Your task to perform on an android device: check google app version Image 0: 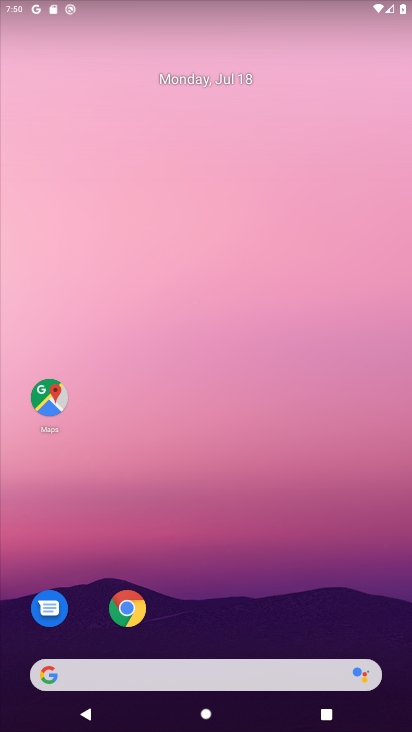
Step 0: drag from (227, 642) to (172, 61)
Your task to perform on an android device: check google app version Image 1: 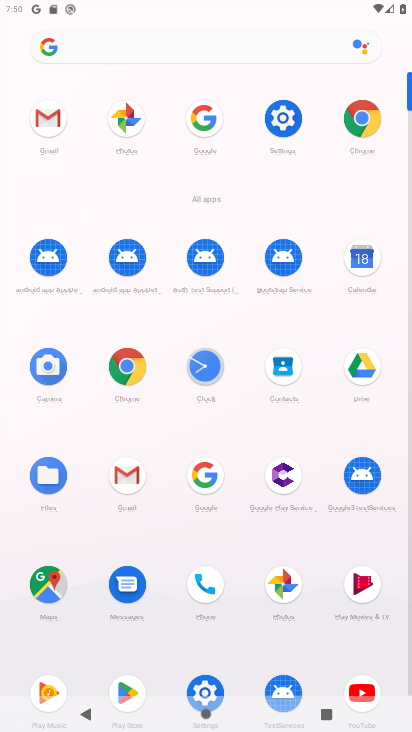
Step 1: click (215, 478)
Your task to perform on an android device: check google app version Image 2: 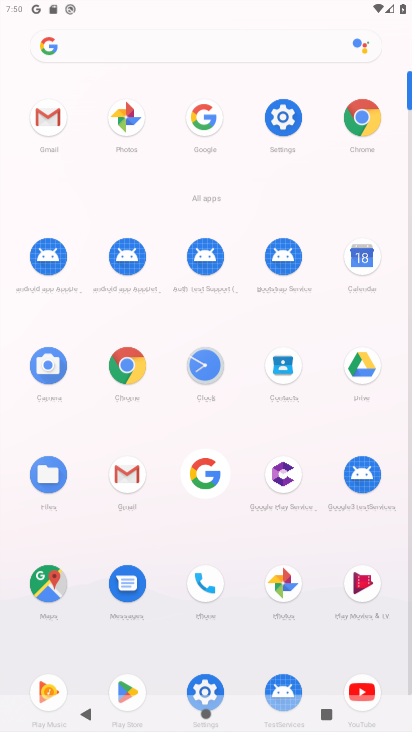
Step 2: click (215, 477)
Your task to perform on an android device: check google app version Image 3: 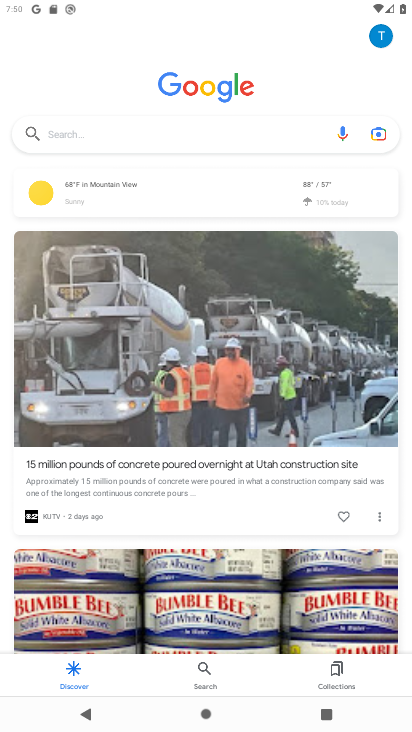
Step 3: click (372, 33)
Your task to perform on an android device: check google app version Image 4: 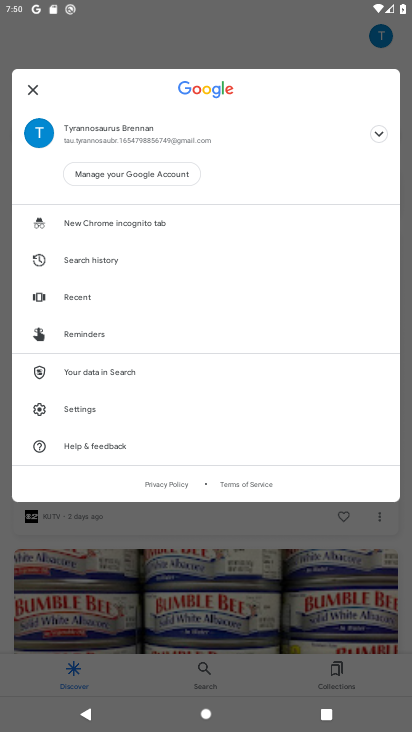
Step 4: click (99, 409)
Your task to perform on an android device: check google app version Image 5: 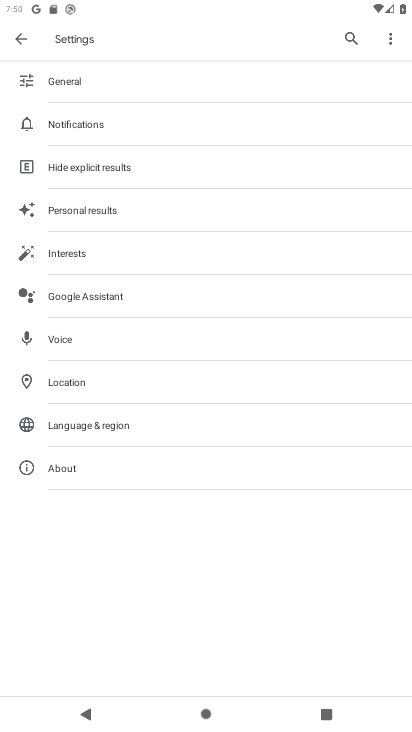
Step 5: click (83, 452)
Your task to perform on an android device: check google app version Image 6: 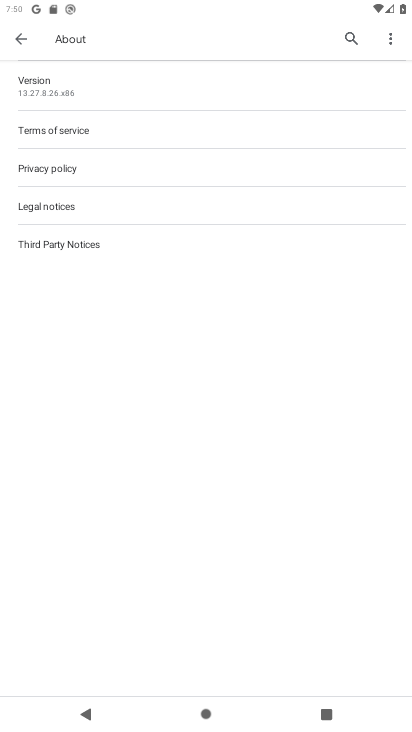
Step 6: click (48, 84)
Your task to perform on an android device: check google app version Image 7: 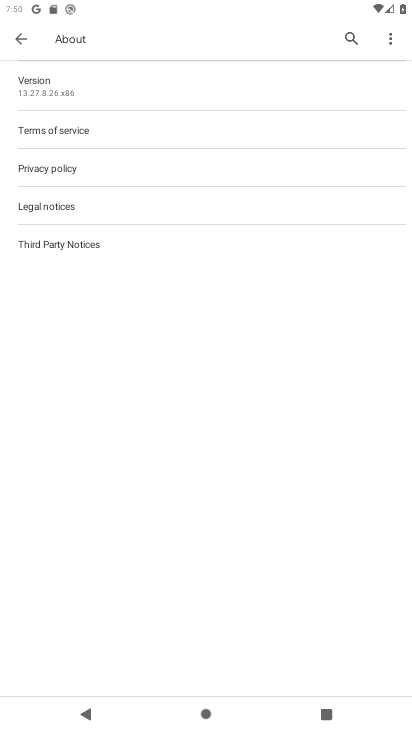
Step 7: task complete